Your task to perform on an android device: Open calendar and show me the second week of next month Image 0: 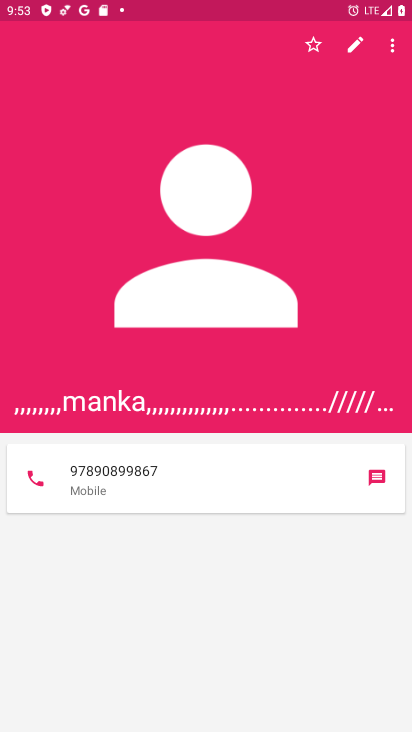
Step 0: press home button
Your task to perform on an android device: Open calendar and show me the second week of next month Image 1: 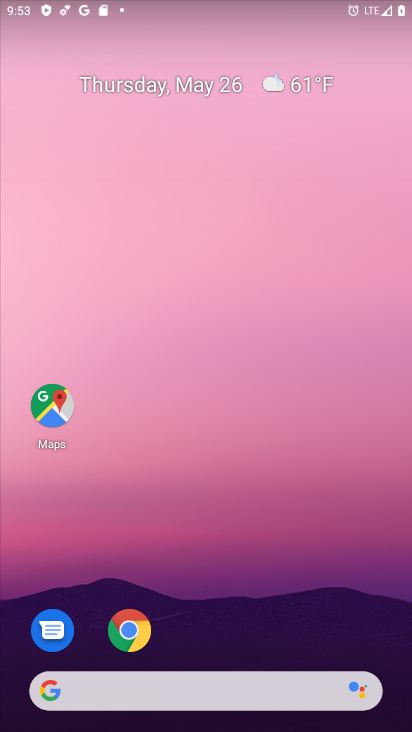
Step 1: drag from (206, 647) to (218, 138)
Your task to perform on an android device: Open calendar and show me the second week of next month Image 2: 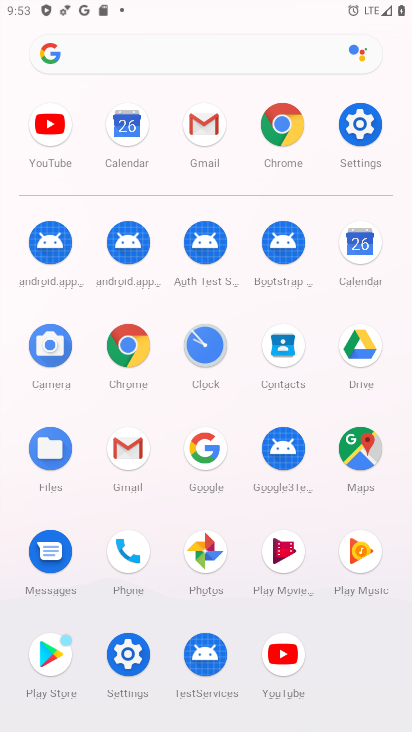
Step 2: click (354, 223)
Your task to perform on an android device: Open calendar and show me the second week of next month Image 3: 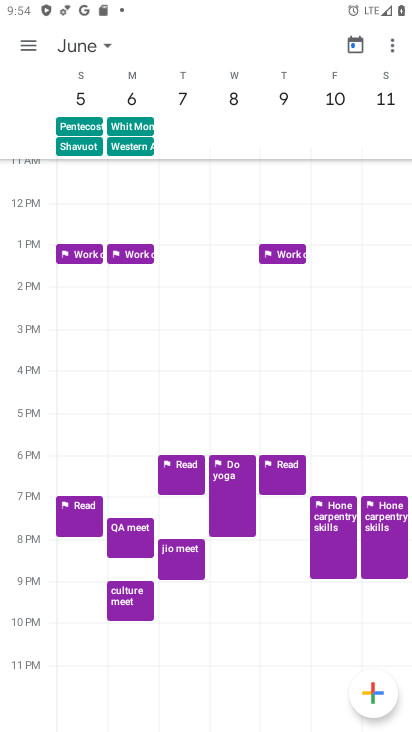
Step 3: task complete